Your task to perform on an android device: toggle airplane mode Image 0: 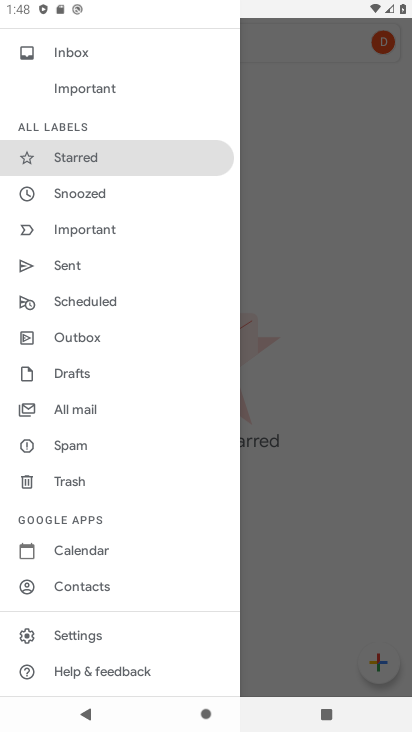
Step 0: press home button
Your task to perform on an android device: toggle airplane mode Image 1: 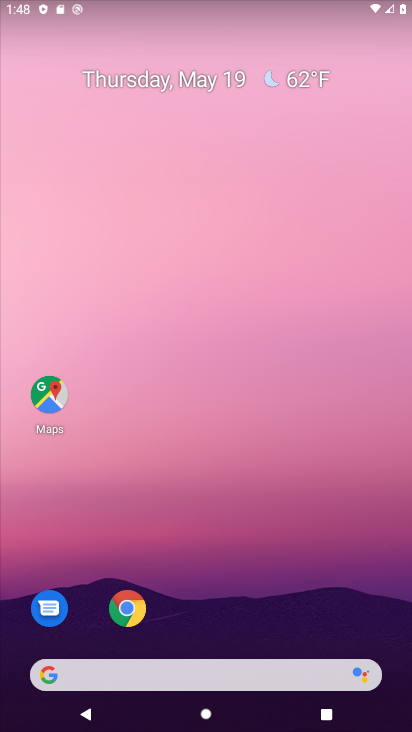
Step 1: drag from (181, 650) to (225, 213)
Your task to perform on an android device: toggle airplane mode Image 2: 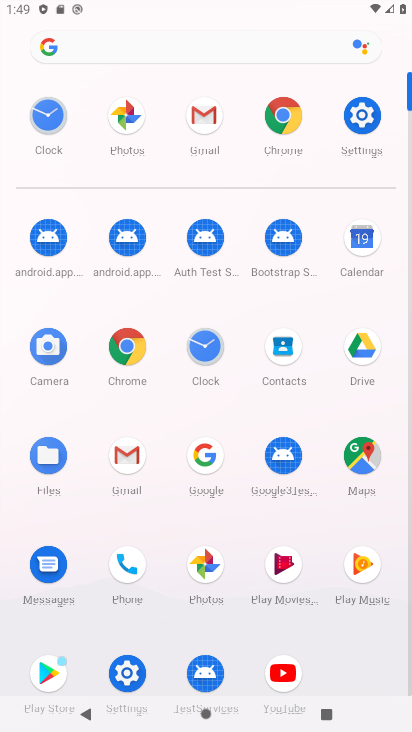
Step 2: click (385, 119)
Your task to perform on an android device: toggle airplane mode Image 3: 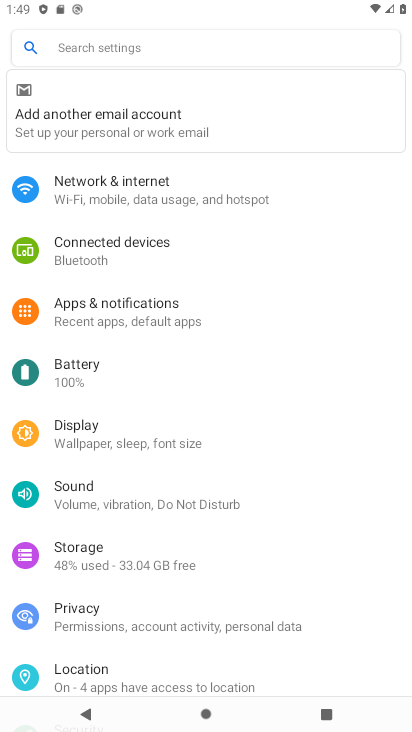
Step 3: click (219, 173)
Your task to perform on an android device: toggle airplane mode Image 4: 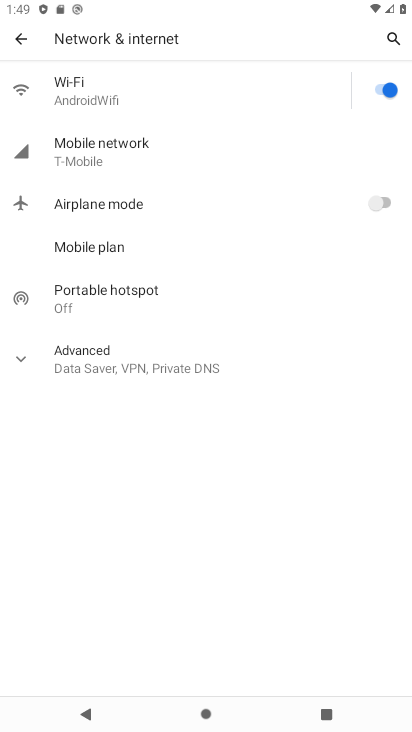
Step 4: click (347, 195)
Your task to perform on an android device: toggle airplane mode Image 5: 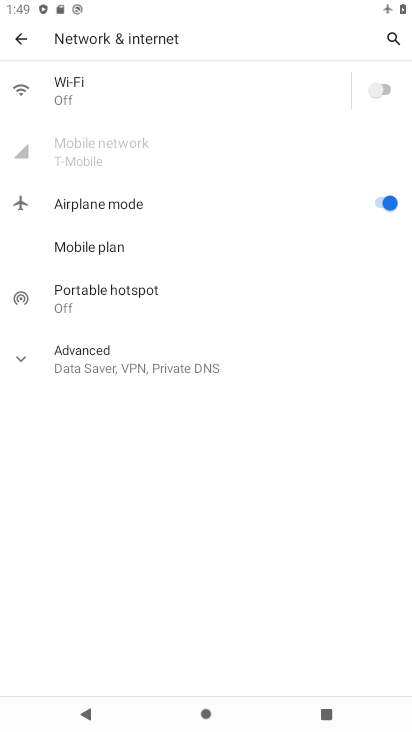
Step 5: click (347, 195)
Your task to perform on an android device: toggle airplane mode Image 6: 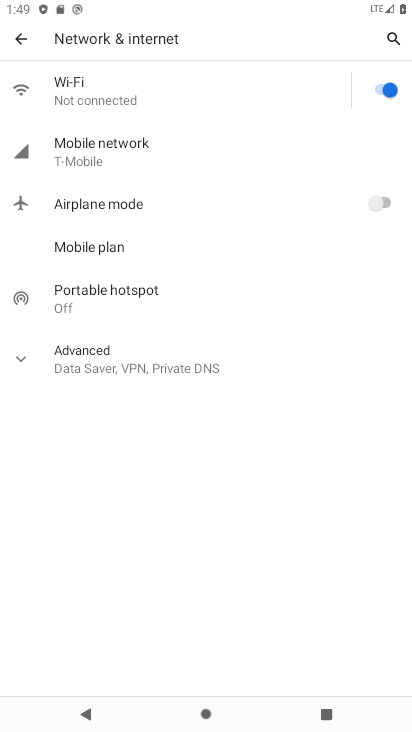
Step 6: task complete